Your task to perform on an android device: check data usage Image 0: 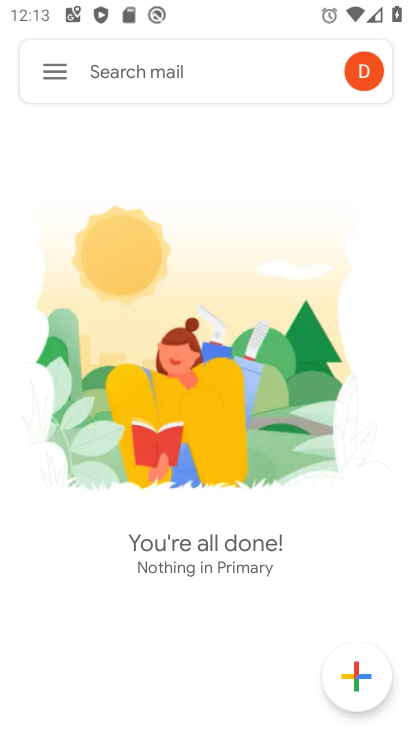
Step 0: press home button
Your task to perform on an android device: check data usage Image 1: 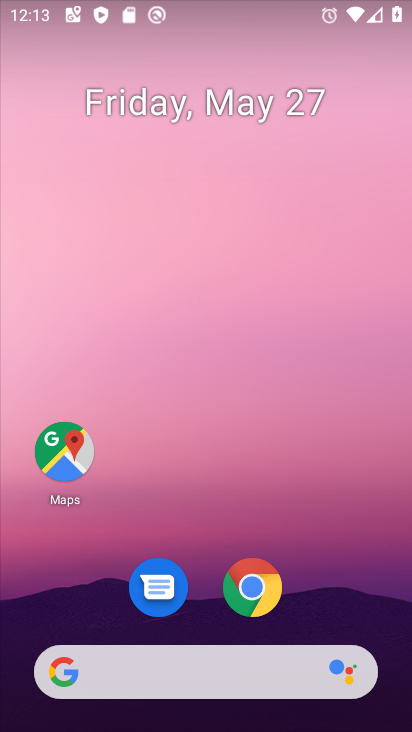
Step 1: drag from (217, 692) to (241, 229)
Your task to perform on an android device: check data usage Image 2: 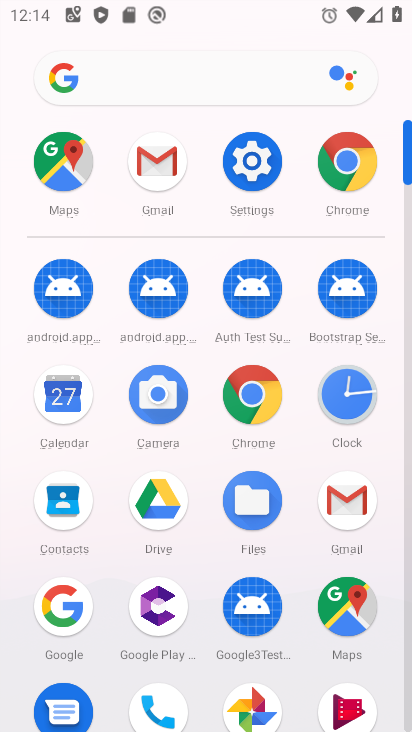
Step 2: click (253, 186)
Your task to perform on an android device: check data usage Image 3: 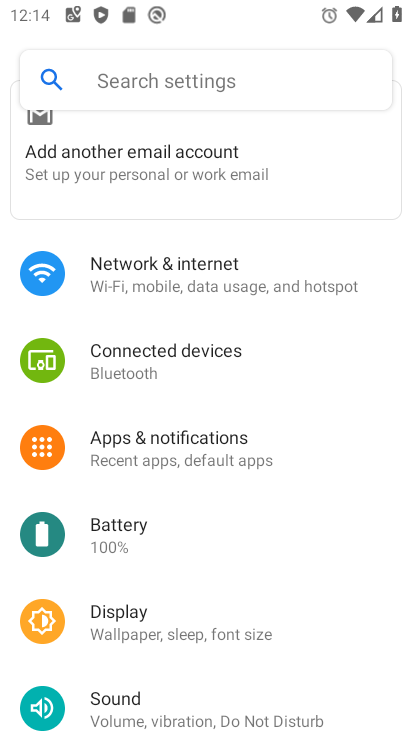
Step 3: click (172, 90)
Your task to perform on an android device: check data usage Image 4: 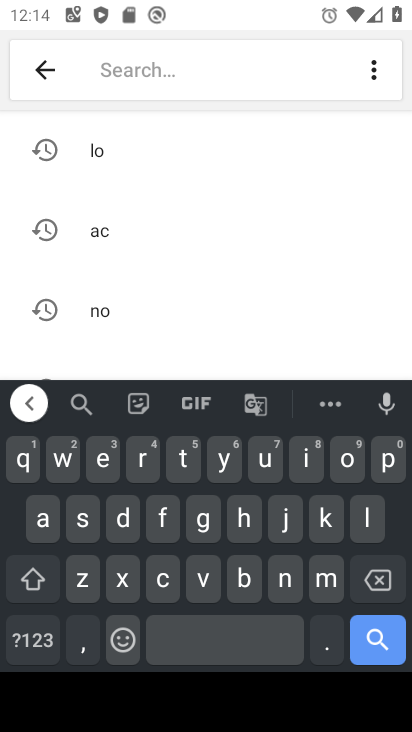
Step 4: click (126, 528)
Your task to perform on an android device: check data usage Image 5: 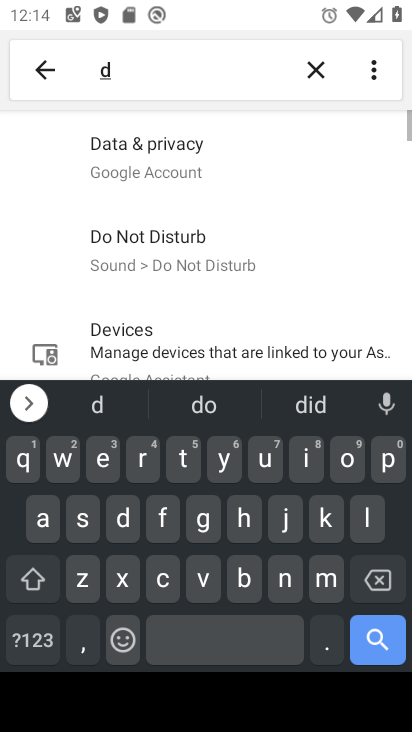
Step 5: click (45, 514)
Your task to perform on an android device: check data usage Image 6: 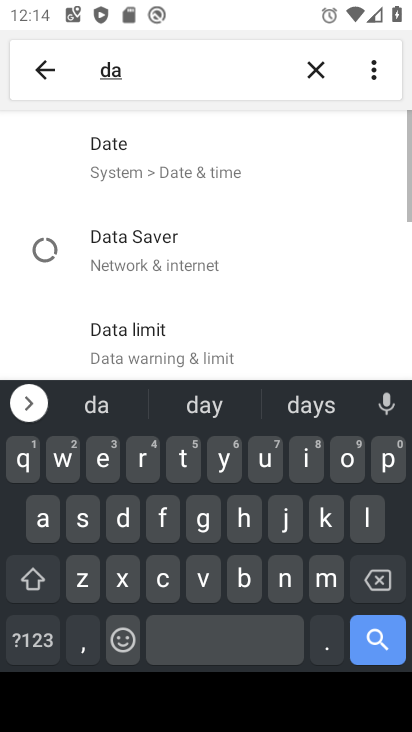
Step 6: click (182, 465)
Your task to perform on an android device: check data usage Image 7: 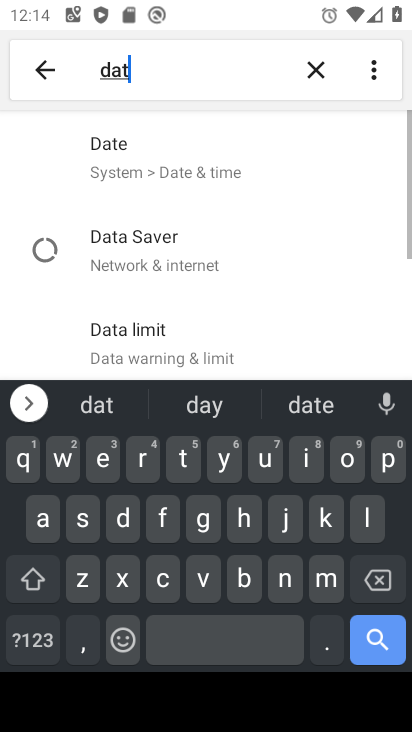
Step 7: click (34, 520)
Your task to perform on an android device: check data usage Image 8: 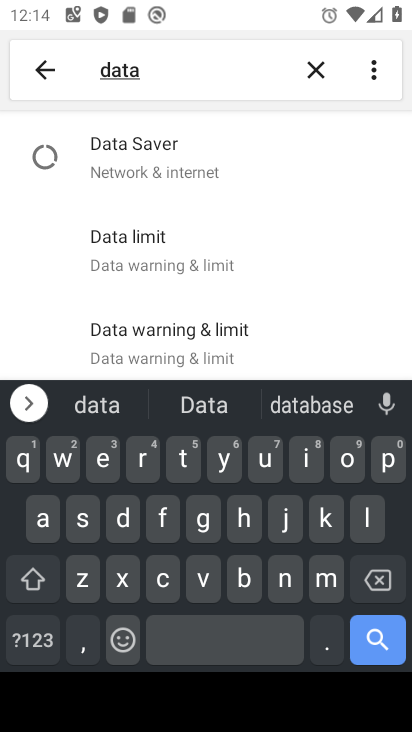
Step 8: click (206, 657)
Your task to perform on an android device: check data usage Image 9: 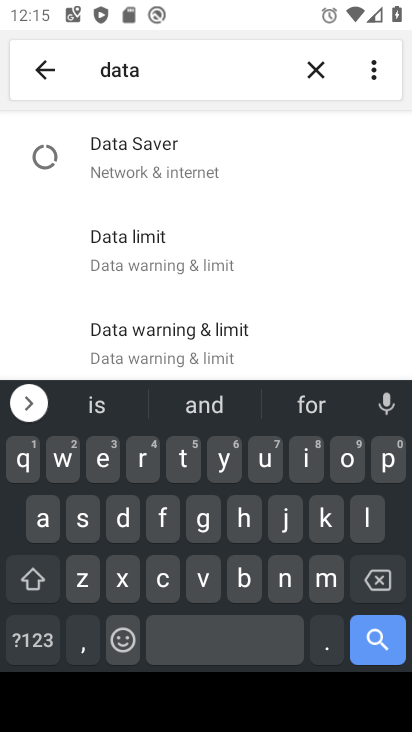
Step 9: click (265, 460)
Your task to perform on an android device: check data usage Image 10: 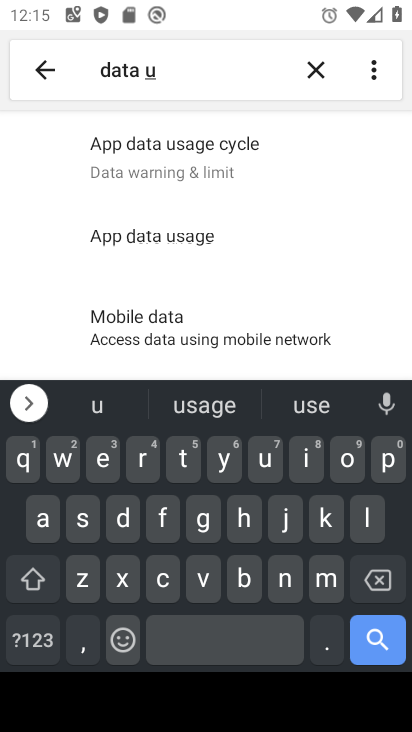
Step 10: click (157, 256)
Your task to perform on an android device: check data usage Image 11: 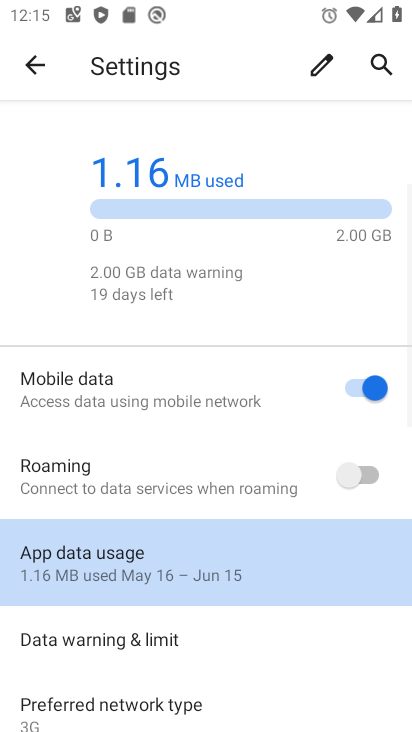
Step 11: task complete